Your task to perform on an android device: What's the weather going to be this weekend? Image 0: 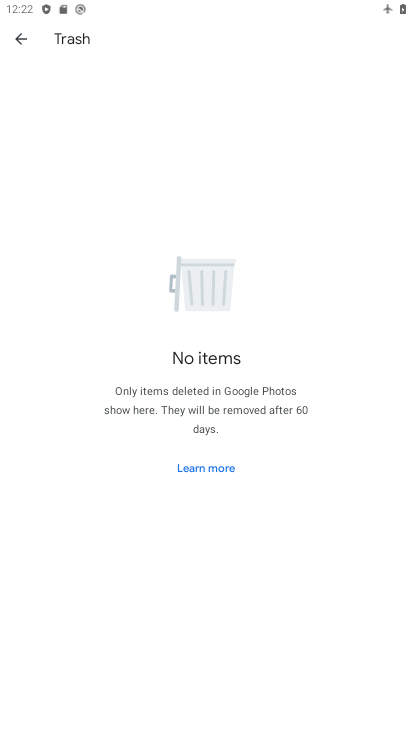
Step 0: press home button
Your task to perform on an android device: What's the weather going to be this weekend? Image 1: 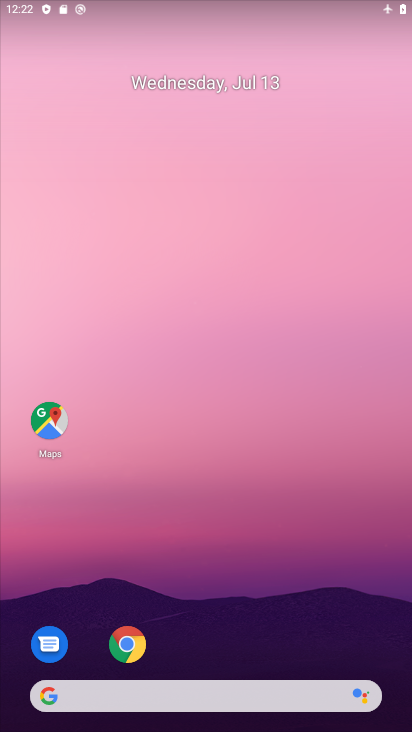
Step 1: drag from (280, 610) to (249, 195)
Your task to perform on an android device: What's the weather going to be this weekend? Image 2: 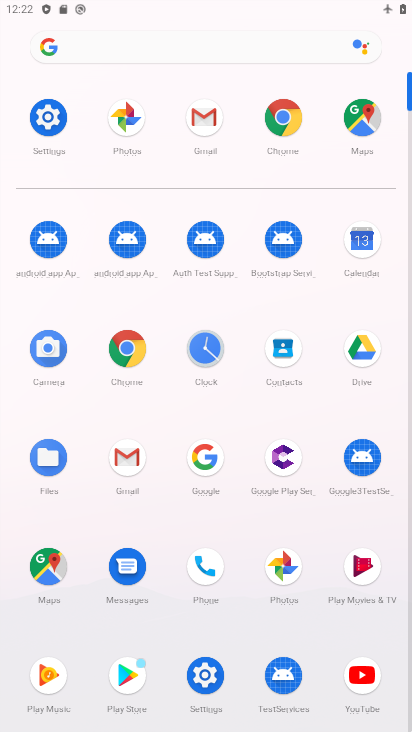
Step 2: click (286, 112)
Your task to perform on an android device: What's the weather going to be this weekend? Image 3: 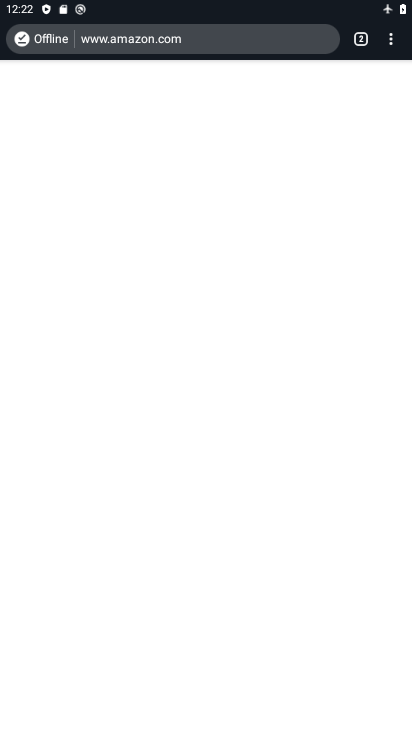
Step 3: click (167, 35)
Your task to perform on an android device: What's the weather going to be this weekend? Image 4: 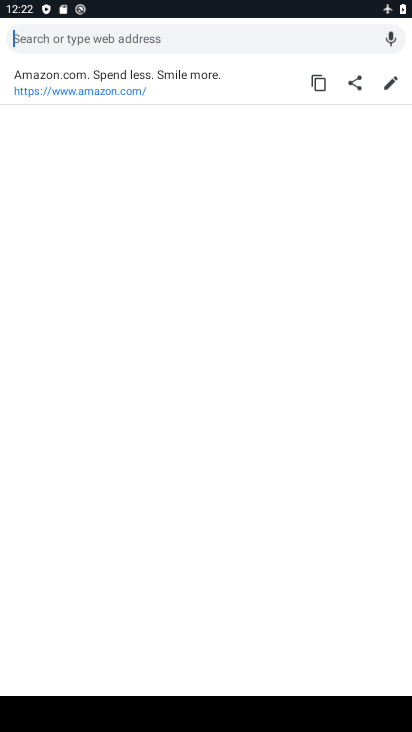
Step 4: type "weather"
Your task to perform on an android device: What's the weather going to be this weekend? Image 5: 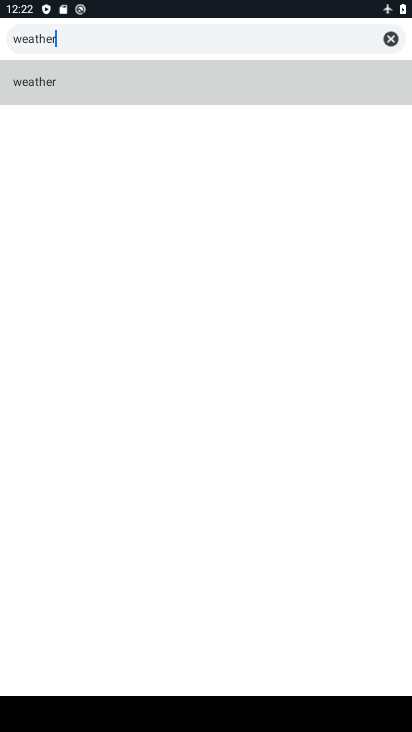
Step 5: click (36, 80)
Your task to perform on an android device: What's the weather going to be this weekend? Image 6: 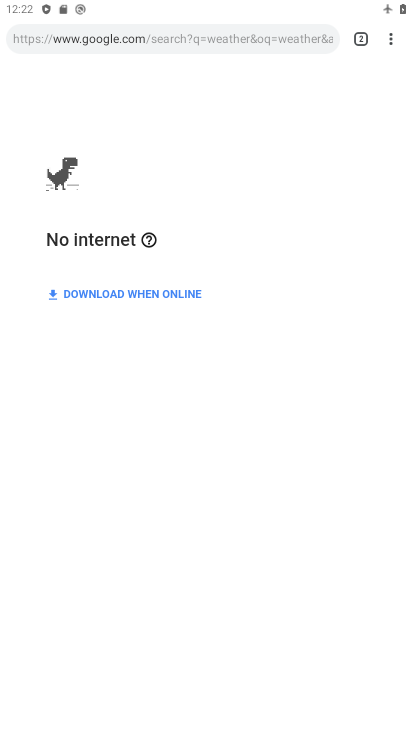
Step 6: task complete